Your task to perform on an android device: turn on improve location accuracy Image 0: 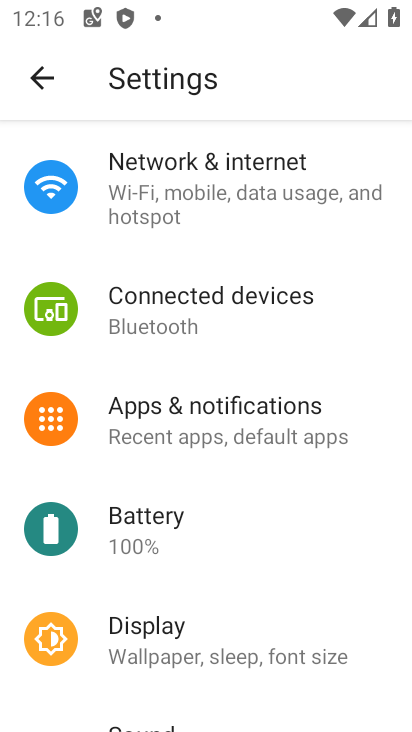
Step 0: drag from (362, 680) to (330, 259)
Your task to perform on an android device: turn on improve location accuracy Image 1: 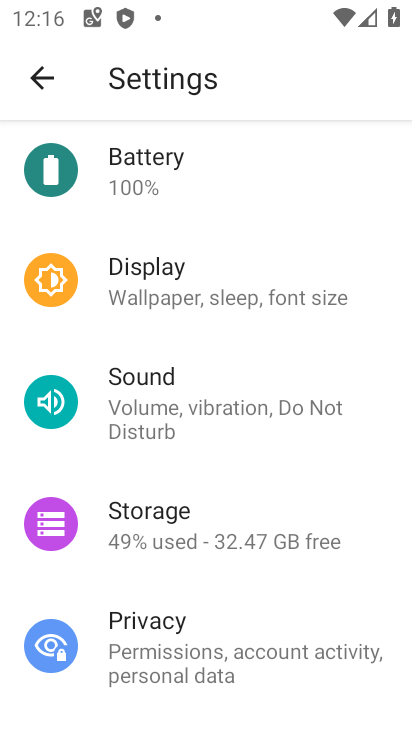
Step 1: drag from (358, 709) to (304, 346)
Your task to perform on an android device: turn on improve location accuracy Image 2: 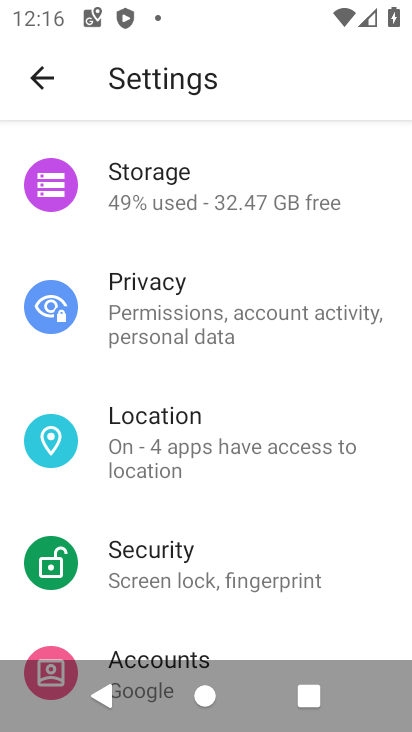
Step 2: click (146, 421)
Your task to perform on an android device: turn on improve location accuracy Image 3: 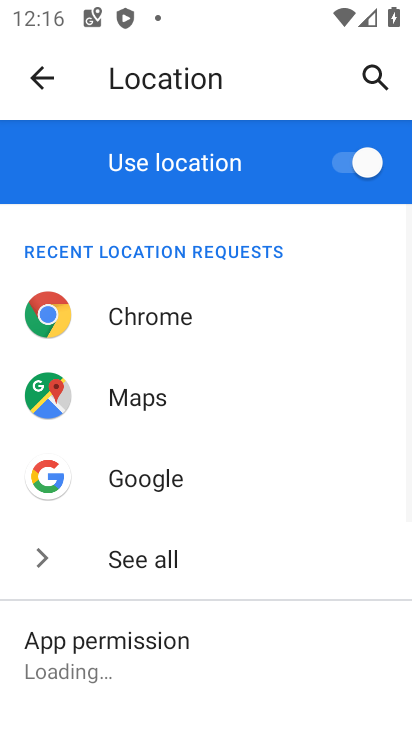
Step 3: drag from (329, 671) to (266, 351)
Your task to perform on an android device: turn on improve location accuracy Image 4: 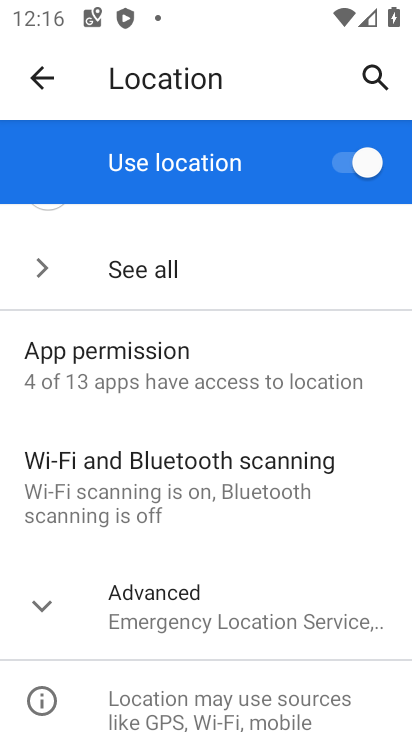
Step 4: click (54, 603)
Your task to perform on an android device: turn on improve location accuracy Image 5: 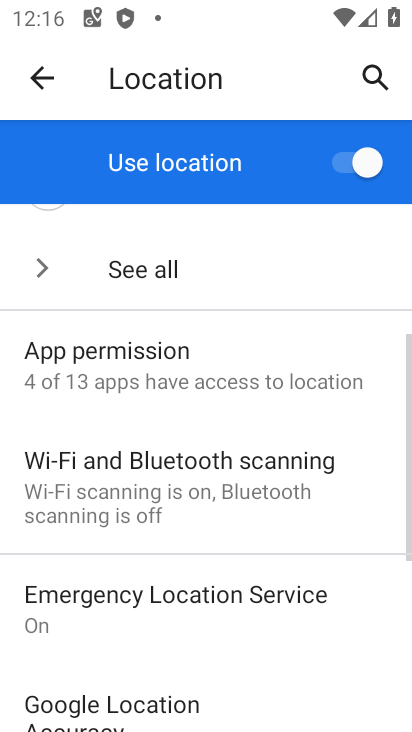
Step 5: drag from (351, 691) to (295, 314)
Your task to perform on an android device: turn on improve location accuracy Image 6: 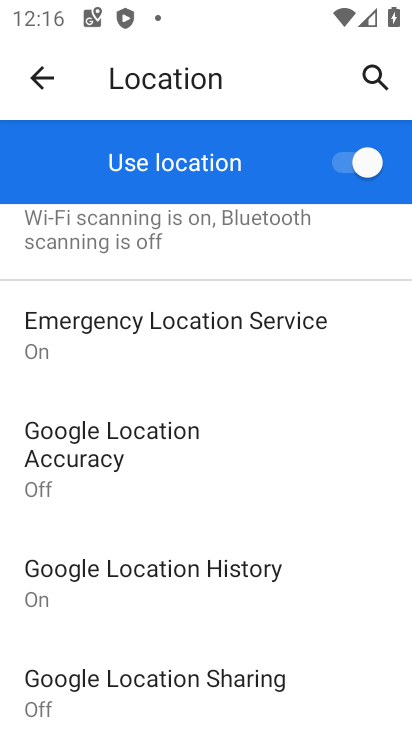
Step 6: click (66, 439)
Your task to perform on an android device: turn on improve location accuracy Image 7: 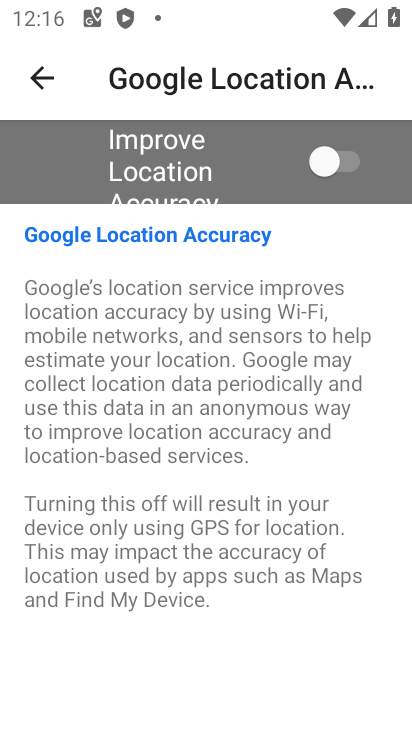
Step 7: click (351, 158)
Your task to perform on an android device: turn on improve location accuracy Image 8: 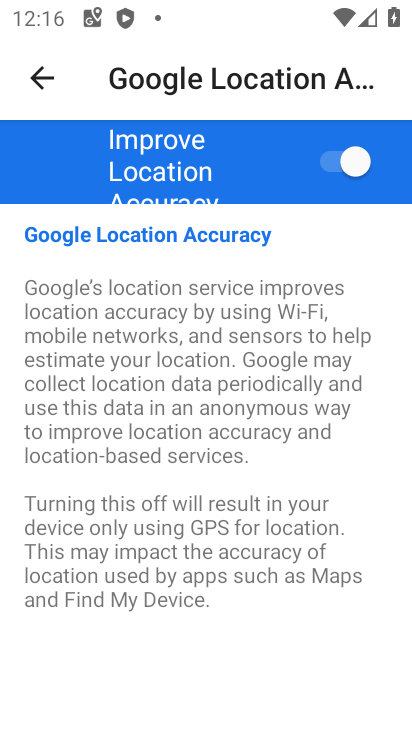
Step 8: task complete